Your task to perform on an android device: turn on priority inbox in the gmail app Image 0: 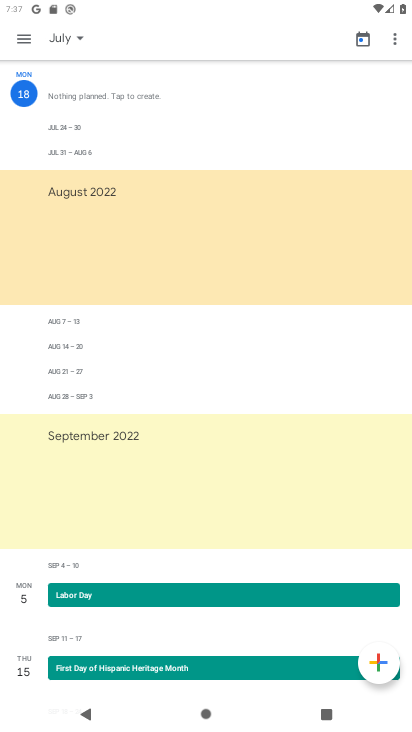
Step 0: press home button
Your task to perform on an android device: turn on priority inbox in the gmail app Image 1: 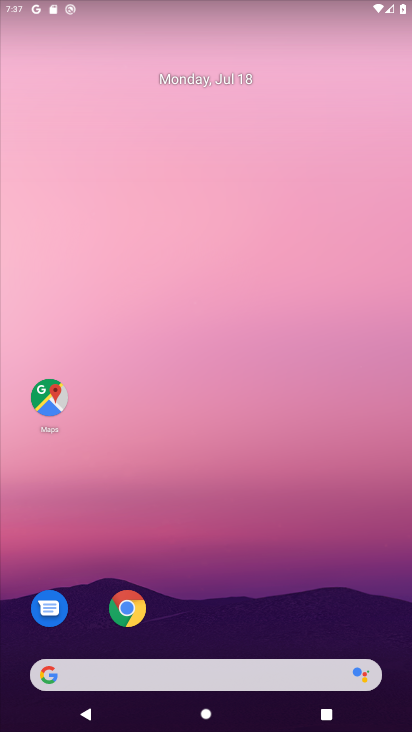
Step 1: drag from (185, 671) to (150, 110)
Your task to perform on an android device: turn on priority inbox in the gmail app Image 2: 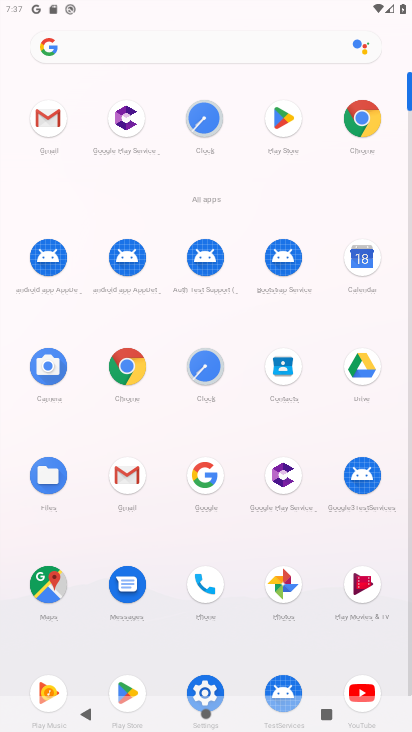
Step 2: click (136, 472)
Your task to perform on an android device: turn on priority inbox in the gmail app Image 3: 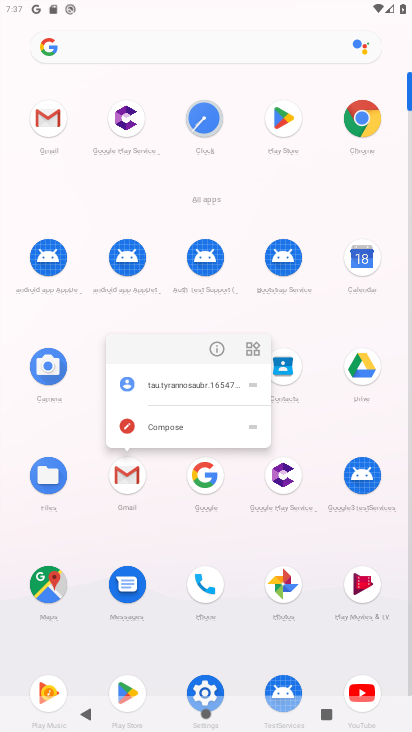
Step 3: click (129, 496)
Your task to perform on an android device: turn on priority inbox in the gmail app Image 4: 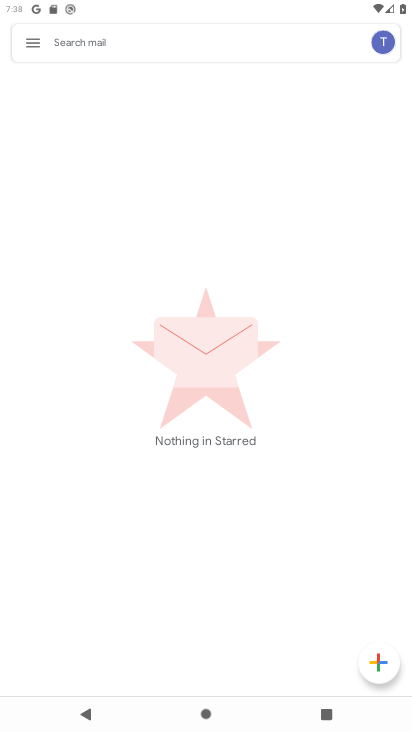
Step 4: click (36, 52)
Your task to perform on an android device: turn on priority inbox in the gmail app Image 5: 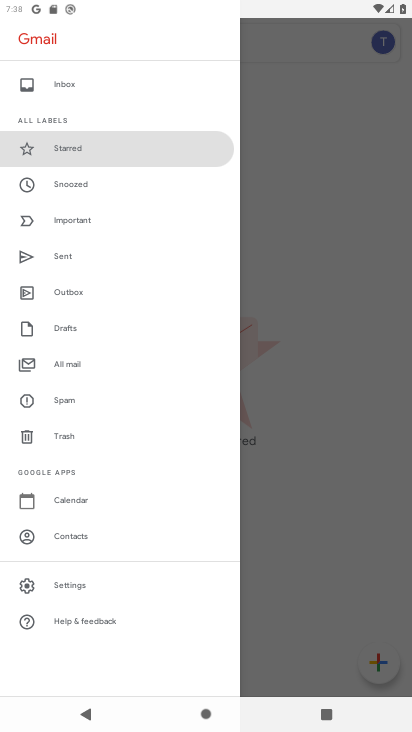
Step 5: click (70, 591)
Your task to perform on an android device: turn on priority inbox in the gmail app Image 6: 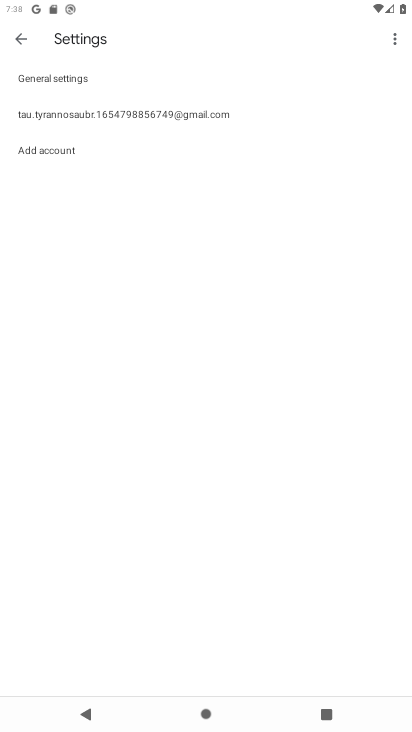
Step 6: click (40, 111)
Your task to perform on an android device: turn on priority inbox in the gmail app Image 7: 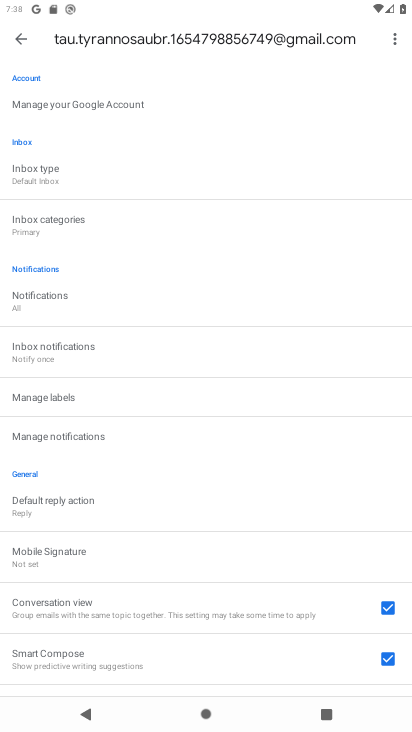
Step 7: click (19, 215)
Your task to perform on an android device: turn on priority inbox in the gmail app Image 8: 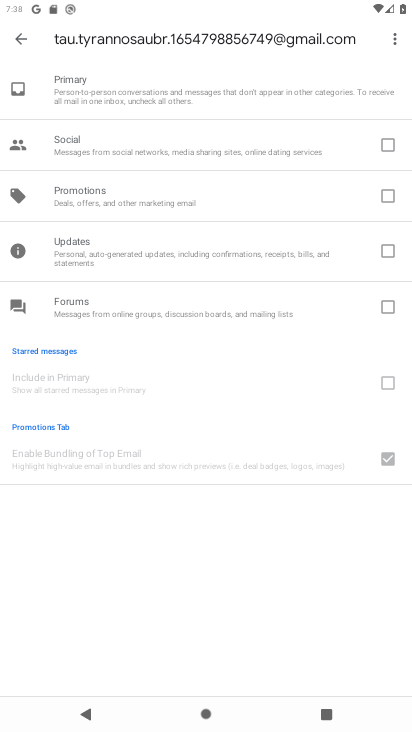
Step 8: click (20, 34)
Your task to perform on an android device: turn on priority inbox in the gmail app Image 9: 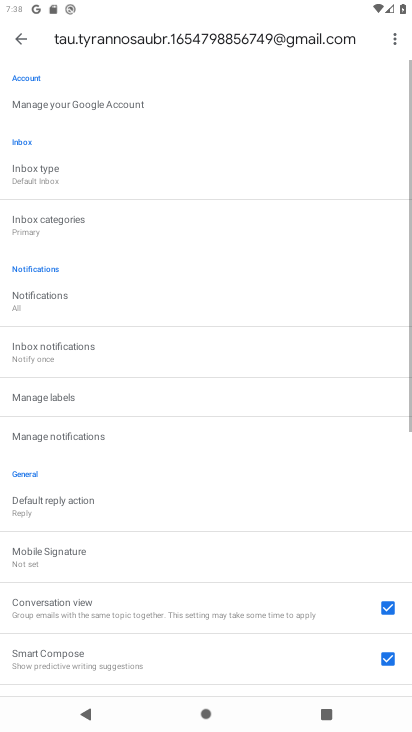
Step 9: click (47, 182)
Your task to perform on an android device: turn on priority inbox in the gmail app Image 10: 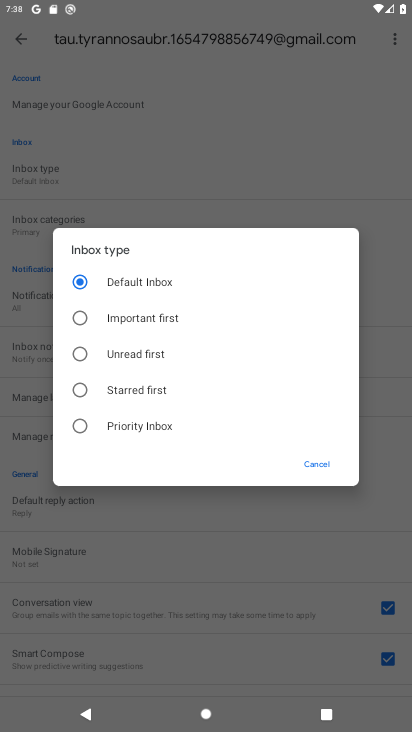
Step 10: click (111, 438)
Your task to perform on an android device: turn on priority inbox in the gmail app Image 11: 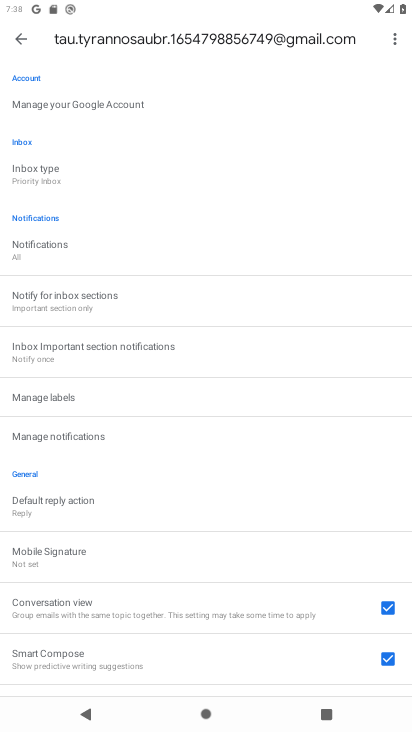
Step 11: task complete